Your task to perform on an android device: remove spam from my inbox in the gmail app Image 0: 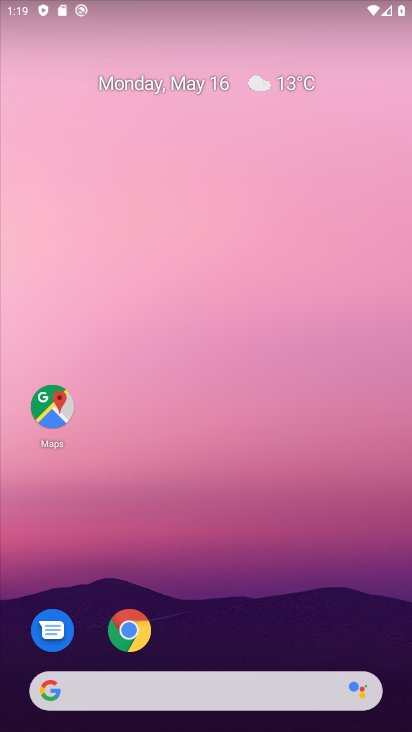
Step 0: drag from (262, 522) to (255, 108)
Your task to perform on an android device: remove spam from my inbox in the gmail app Image 1: 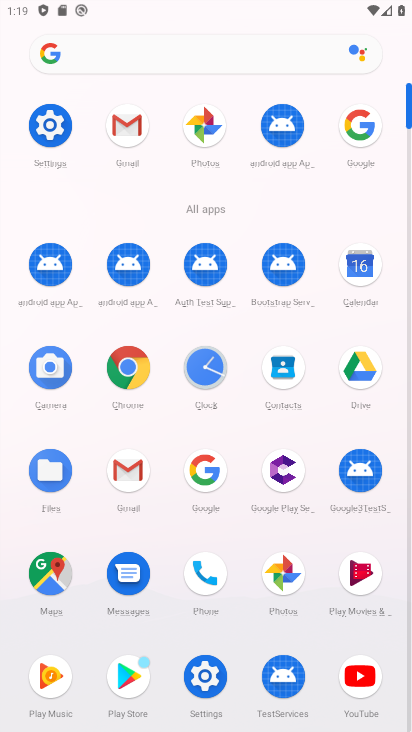
Step 1: click (142, 138)
Your task to perform on an android device: remove spam from my inbox in the gmail app Image 2: 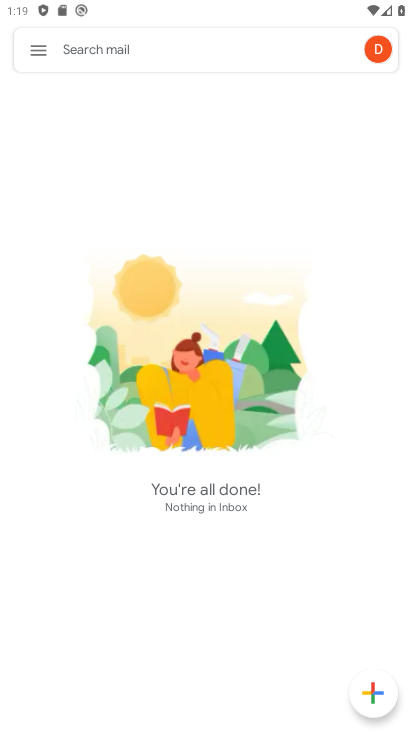
Step 2: click (28, 46)
Your task to perform on an android device: remove spam from my inbox in the gmail app Image 3: 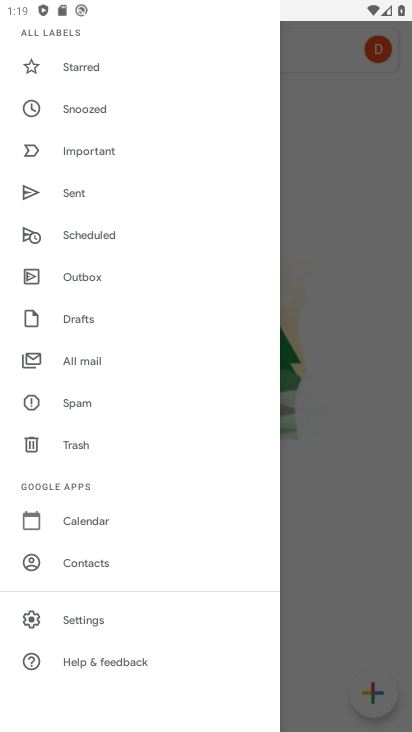
Step 3: click (68, 355)
Your task to perform on an android device: remove spam from my inbox in the gmail app Image 4: 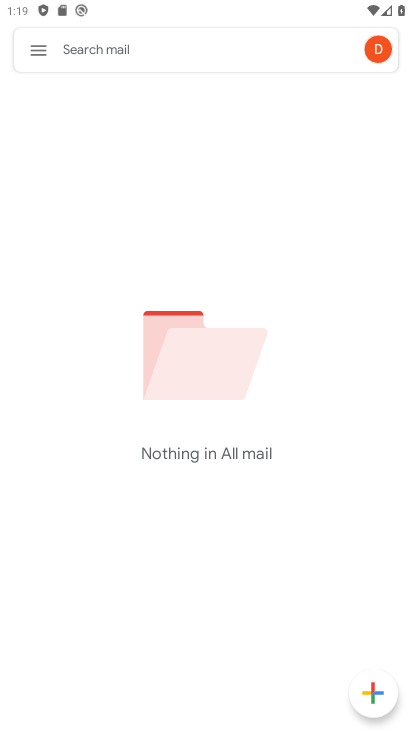
Step 4: click (29, 53)
Your task to perform on an android device: remove spam from my inbox in the gmail app Image 5: 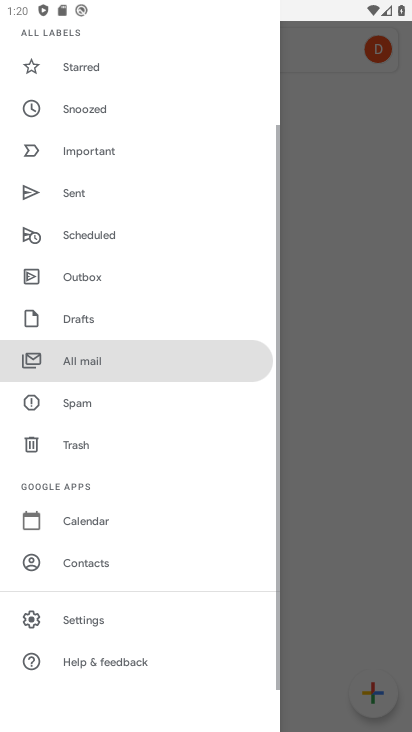
Step 5: click (133, 304)
Your task to perform on an android device: remove spam from my inbox in the gmail app Image 6: 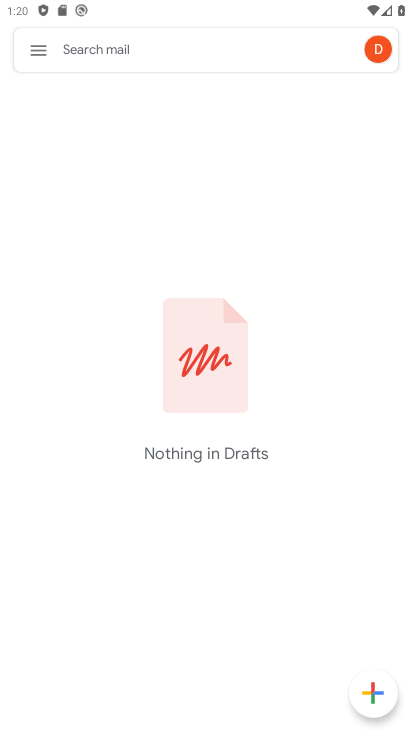
Step 6: task complete